Your task to perform on an android device: open app "DoorDash - Dasher" (install if not already installed), go to login, and select forgot password Image 0: 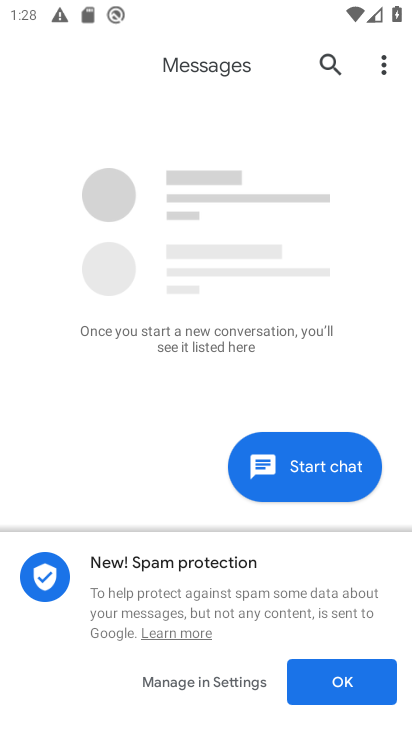
Step 0: press home button
Your task to perform on an android device: open app "DoorDash - Dasher" (install if not already installed), go to login, and select forgot password Image 1: 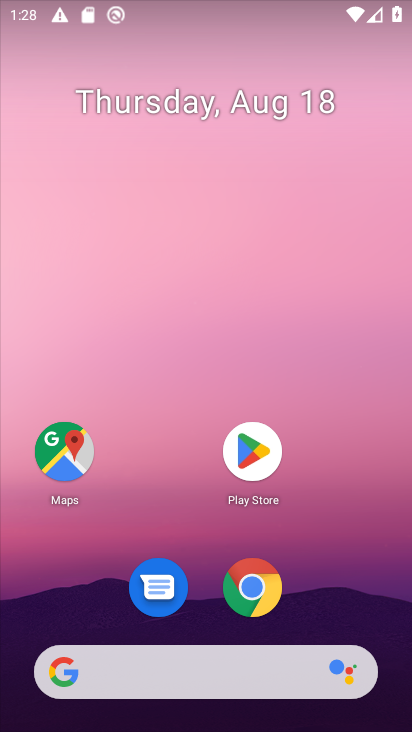
Step 1: click (264, 443)
Your task to perform on an android device: open app "DoorDash - Dasher" (install if not already installed), go to login, and select forgot password Image 2: 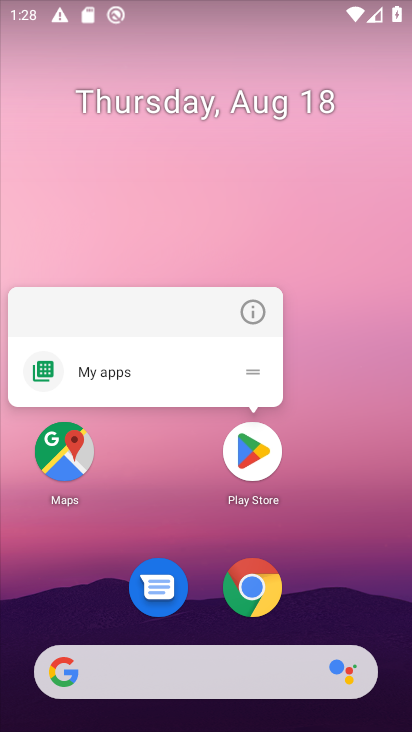
Step 2: click (256, 452)
Your task to perform on an android device: open app "DoorDash - Dasher" (install if not already installed), go to login, and select forgot password Image 3: 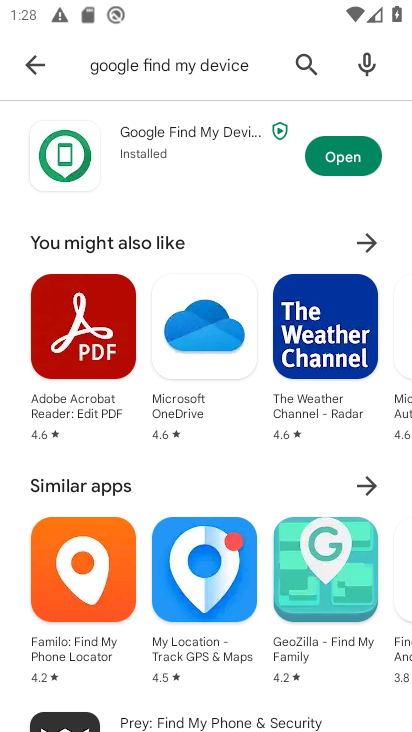
Step 3: click (301, 59)
Your task to perform on an android device: open app "DoorDash - Dasher" (install if not already installed), go to login, and select forgot password Image 4: 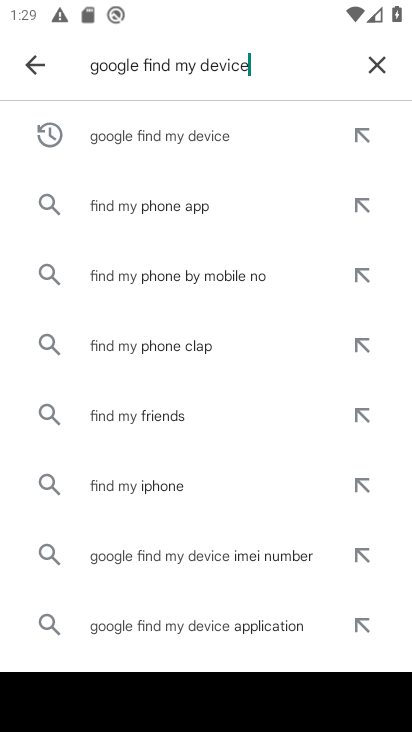
Step 4: click (372, 61)
Your task to perform on an android device: open app "DoorDash - Dasher" (install if not already installed), go to login, and select forgot password Image 5: 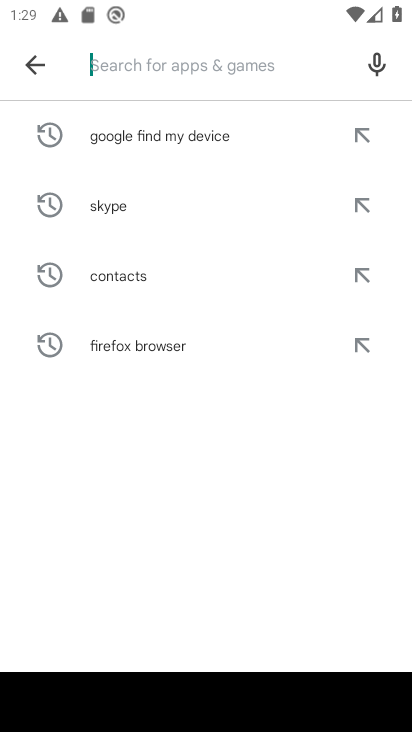
Step 5: type "DoorDash - Dasher"
Your task to perform on an android device: open app "DoorDash - Dasher" (install if not already installed), go to login, and select forgot password Image 6: 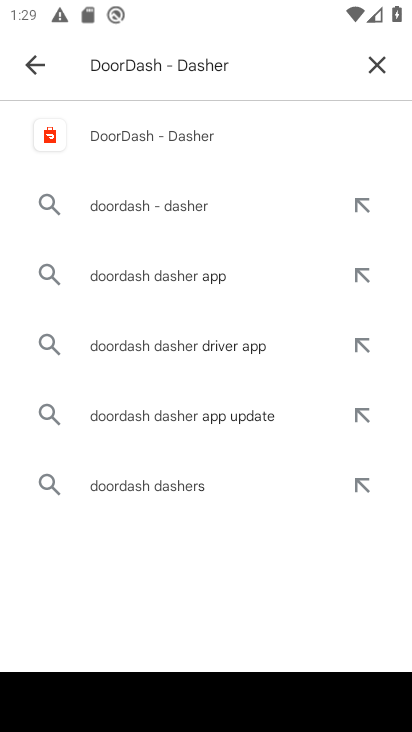
Step 6: click (157, 134)
Your task to perform on an android device: open app "DoorDash - Dasher" (install if not already installed), go to login, and select forgot password Image 7: 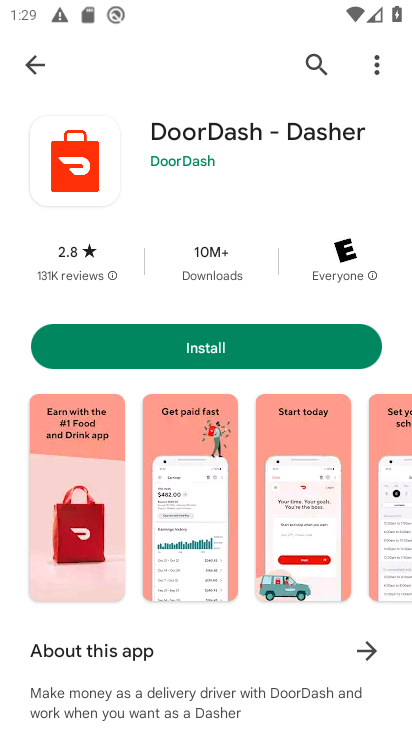
Step 7: click (201, 344)
Your task to perform on an android device: open app "DoorDash - Dasher" (install if not already installed), go to login, and select forgot password Image 8: 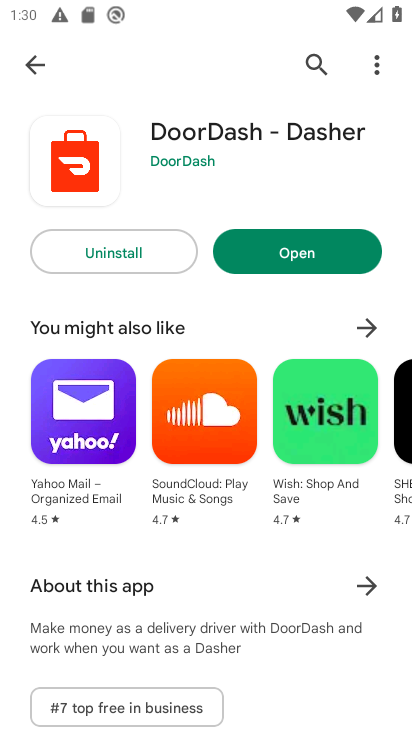
Step 8: click (307, 255)
Your task to perform on an android device: open app "DoorDash - Dasher" (install if not already installed), go to login, and select forgot password Image 9: 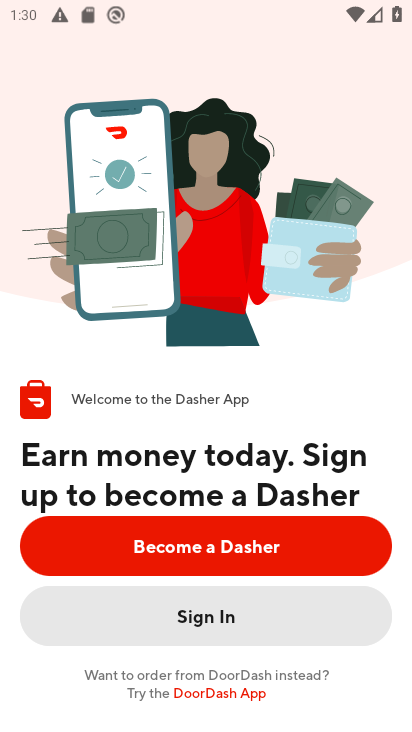
Step 9: click (212, 619)
Your task to perform on an android device: open app "DoorDash - Dasher" (install if not already installed), go to login, and select forgot password Image 10: 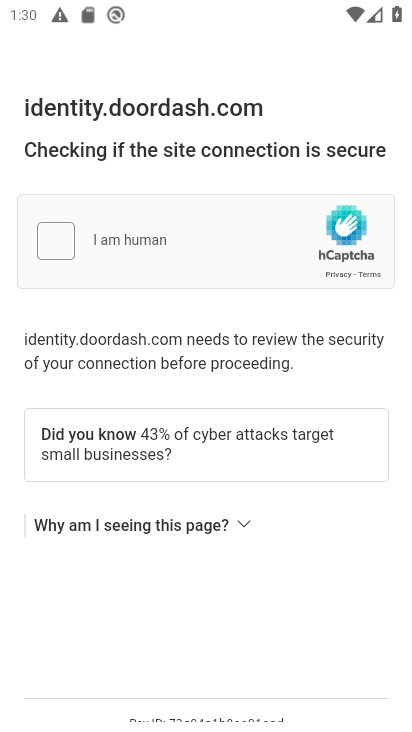
Step 10: task complete